Your task to perform on an android device: Open location settings Image 0: 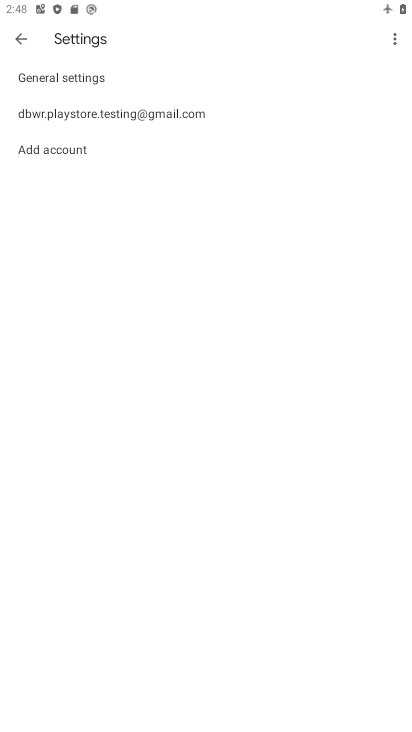
Step 0: press home button
Your task to perform on an android device: Open location settings Image 1: 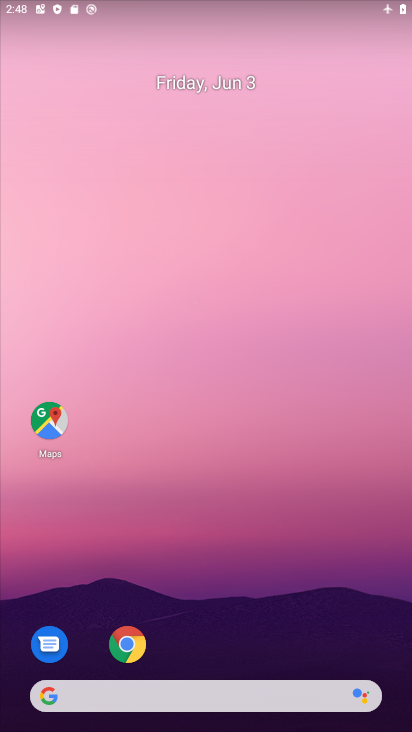
Step 1: drag from (202, 632) to (193, 279)
Your task to perform on an android device: Open location settings Image 2: 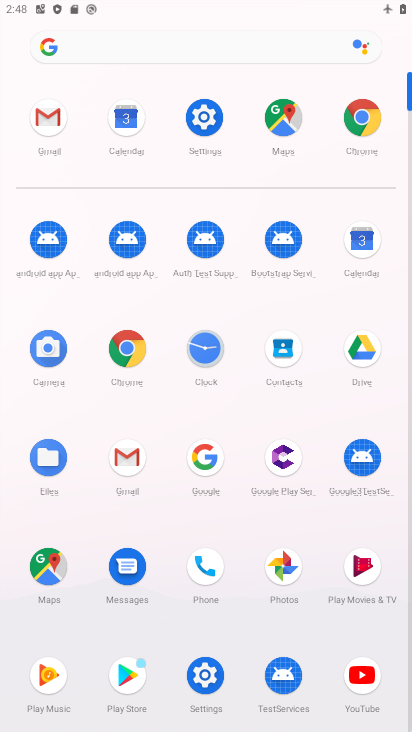
Step 2: click (195, 132)
Your task to perform on an android device: Open location settings Image 3: 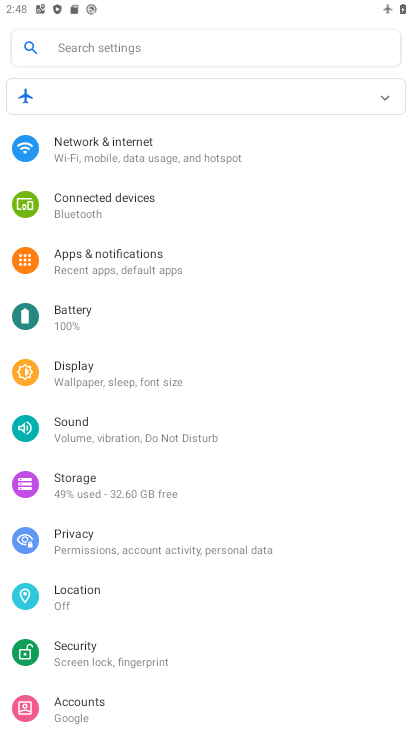
Step 3: click (123, 598)
Your task to perform on an android device: Open location settings Image 4: 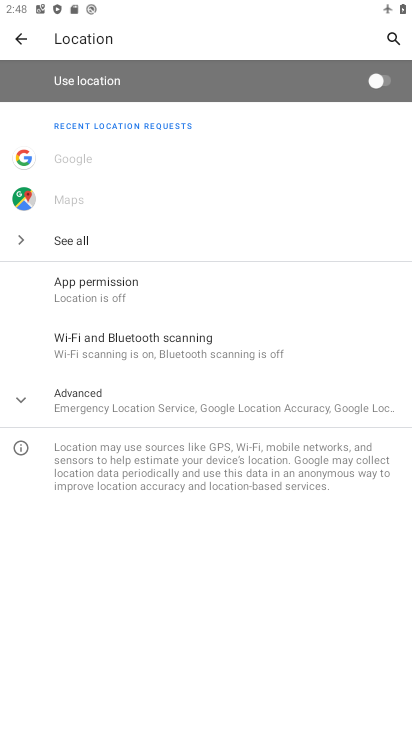
Step 4: task complete